Your task to perform on an android device: open app "LiveIn - Share Your Moment" (install if not already installed) Image 0: 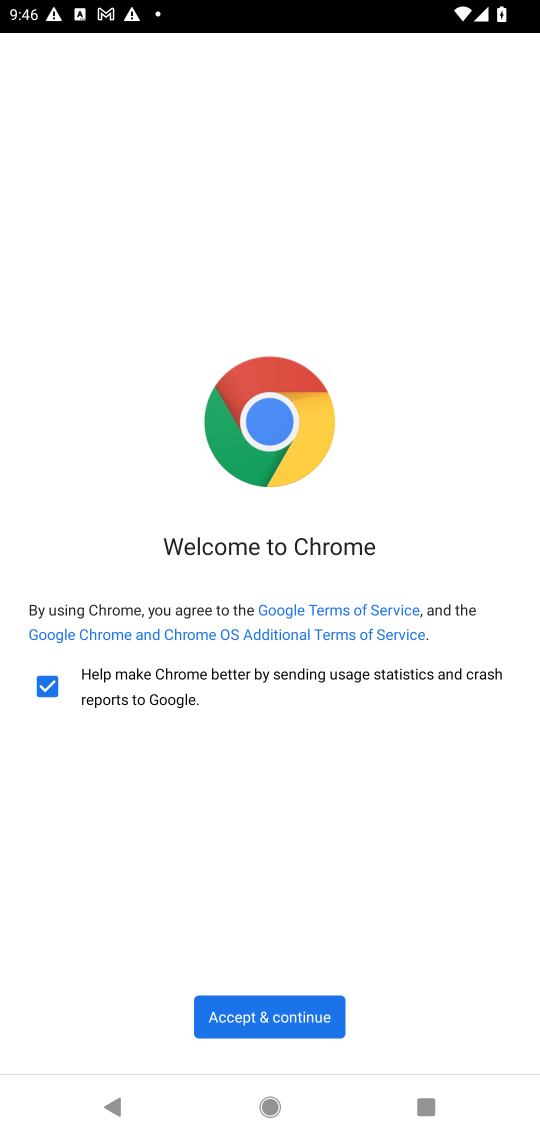
Step 0: press home button
Your task to perform on an android device: open app "LiveIn - Share Your Moment" (install if not already installed) Image 1: 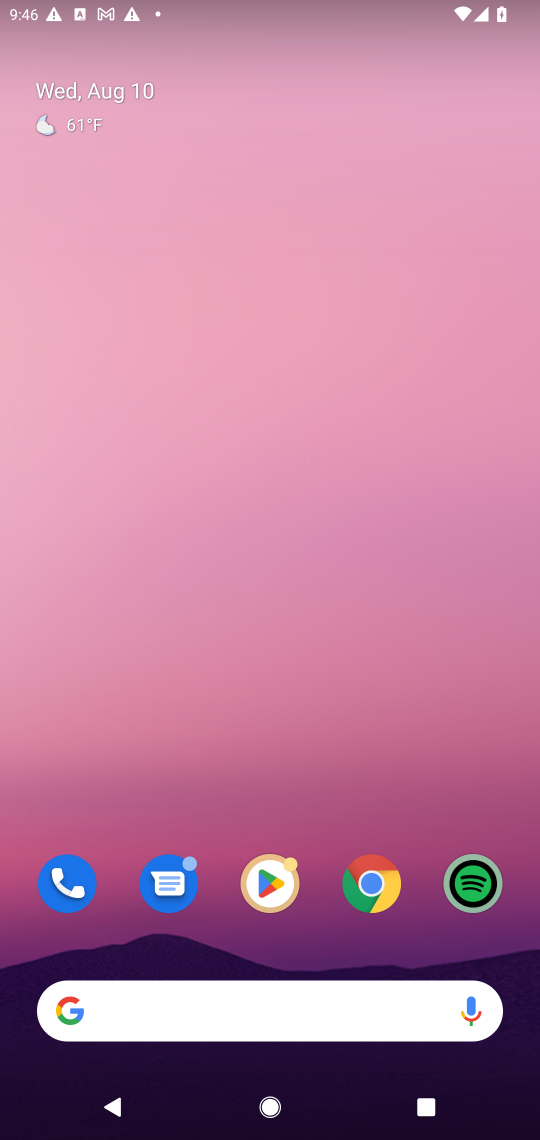
Step 1: click (282, 889)
Your task to perform on an android device: open app "LiveIn - Share Your Moment" (install if not already installed) Image 2: 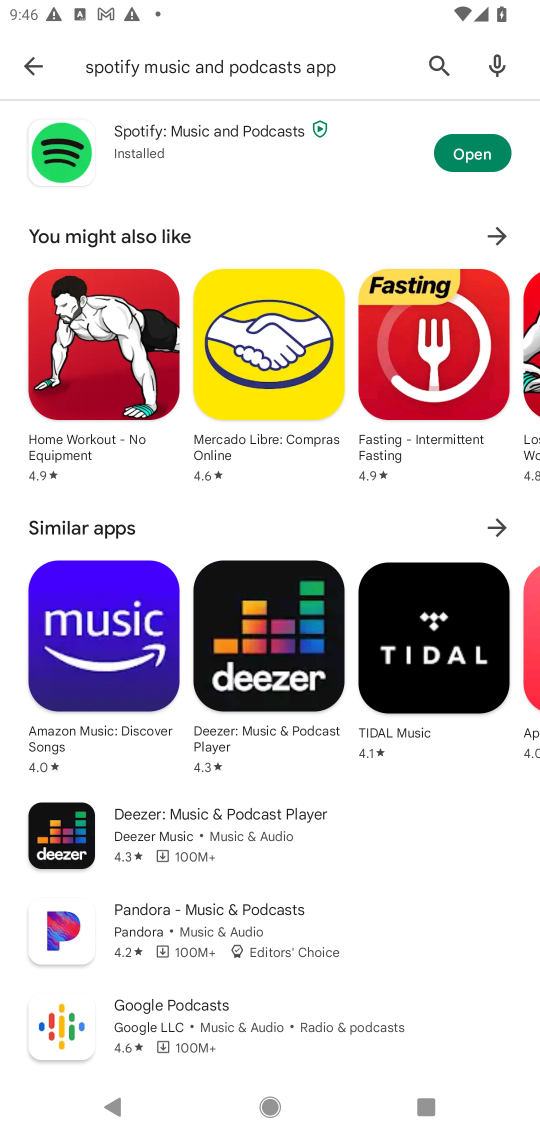
Step 2: click (442, 83)
Your task to perform on an android device: open app "LiveIn - Share Your Moment" (install if not already installed) Image 3: 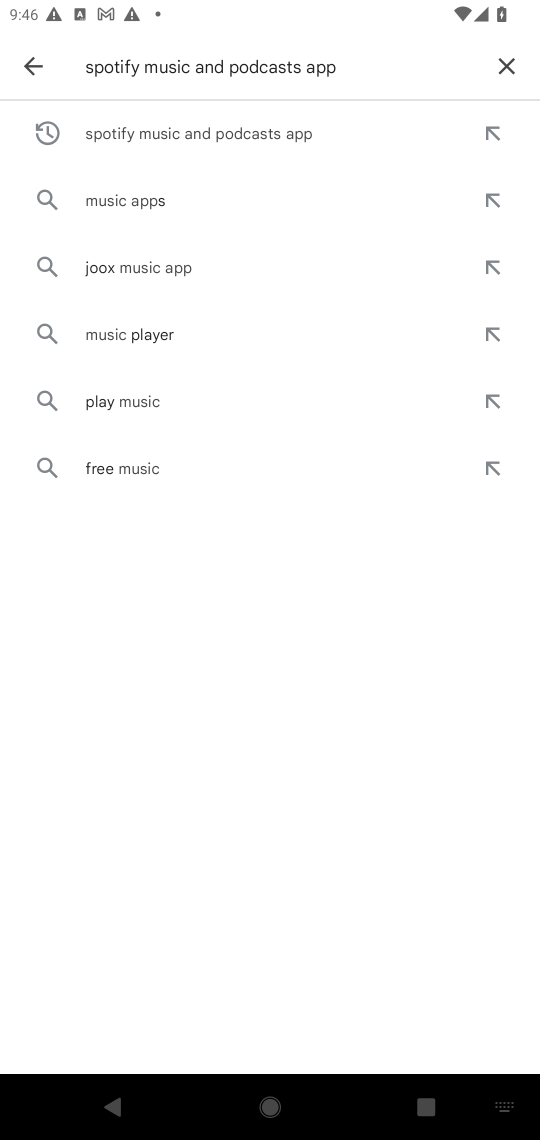
Step 3: click (499, 66)
Your task to perform on an android device: open app "LiveIn - Share Your Moment" (install if not already installed) Image 4: 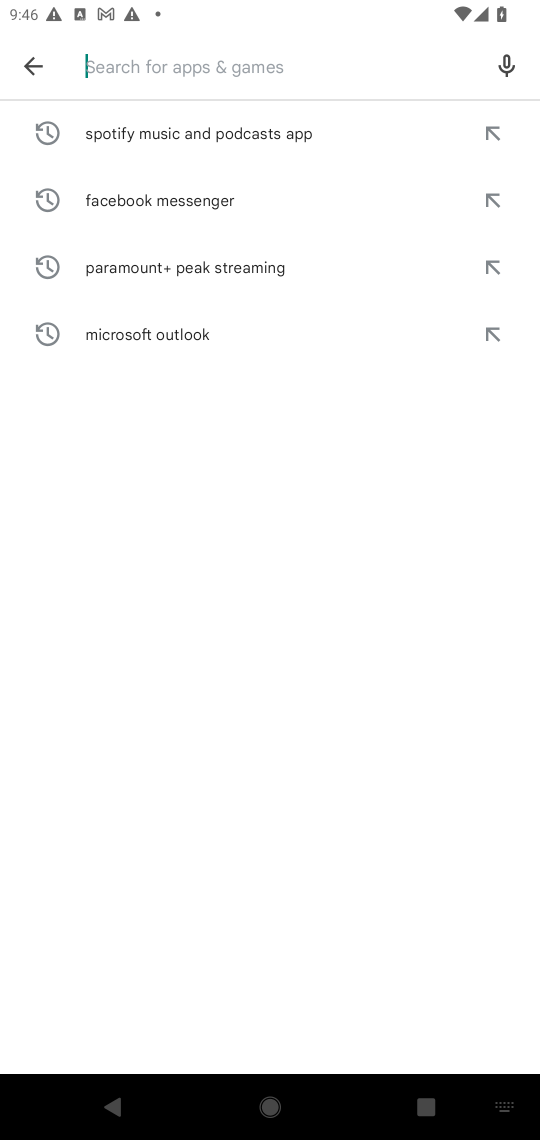
Step 4: type "LiveIn - Share Your Moment"
Your task to perform on an android device: open app "LiveIn - Share Your Moment" (install if not already installed) Image 5: 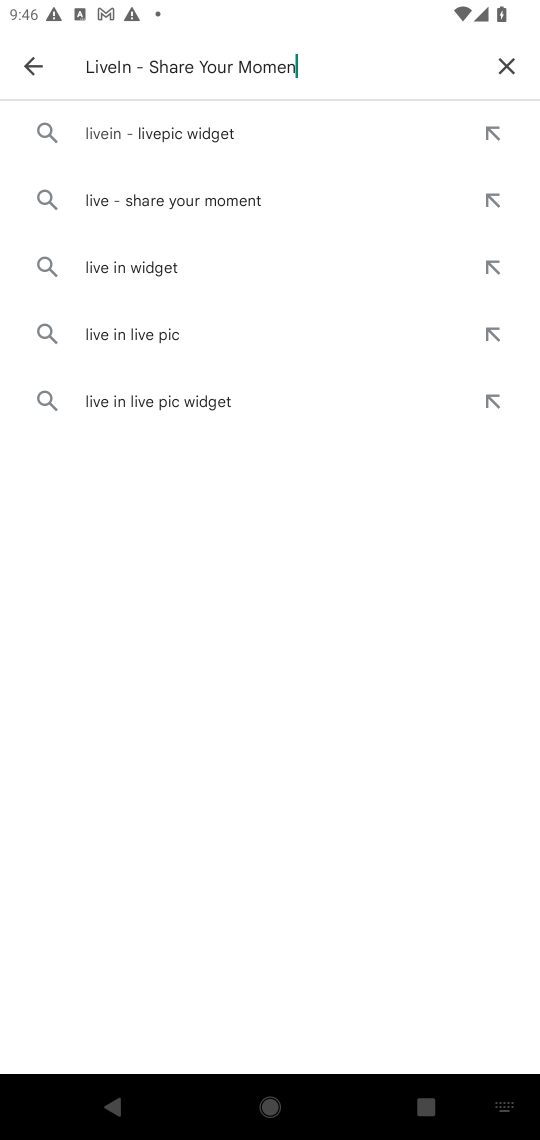
Step 5: type ""
Your task to perform on an android device: open app "LiveIn - Share Your Moment" (install if not already installed) Image 6: 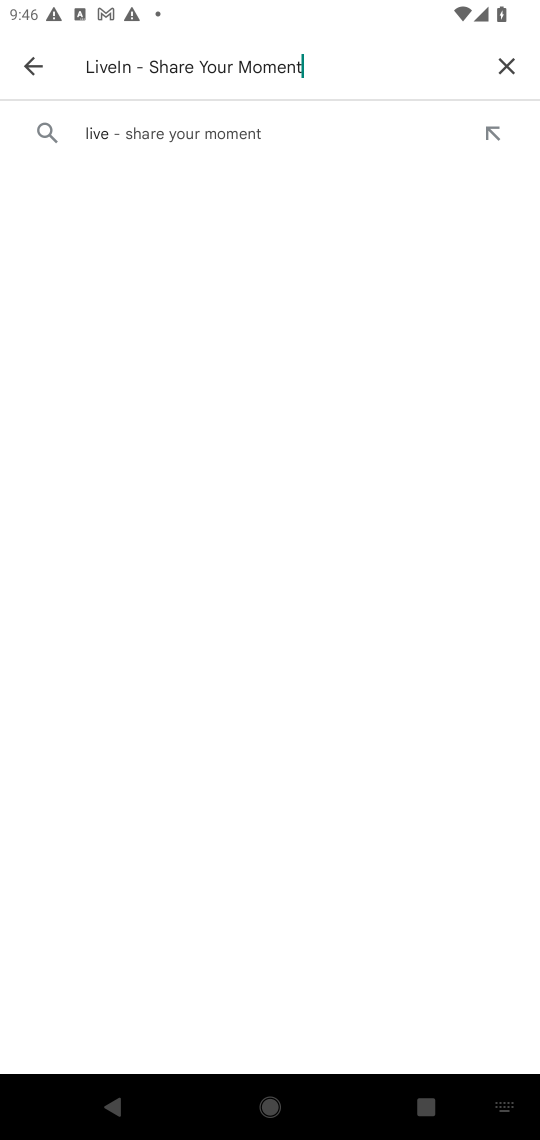
Step 6: click (215, 134)
Your task to perform on an android device: open app "LiveIn - Share Your Moment" (install if not already installed) Image 7: 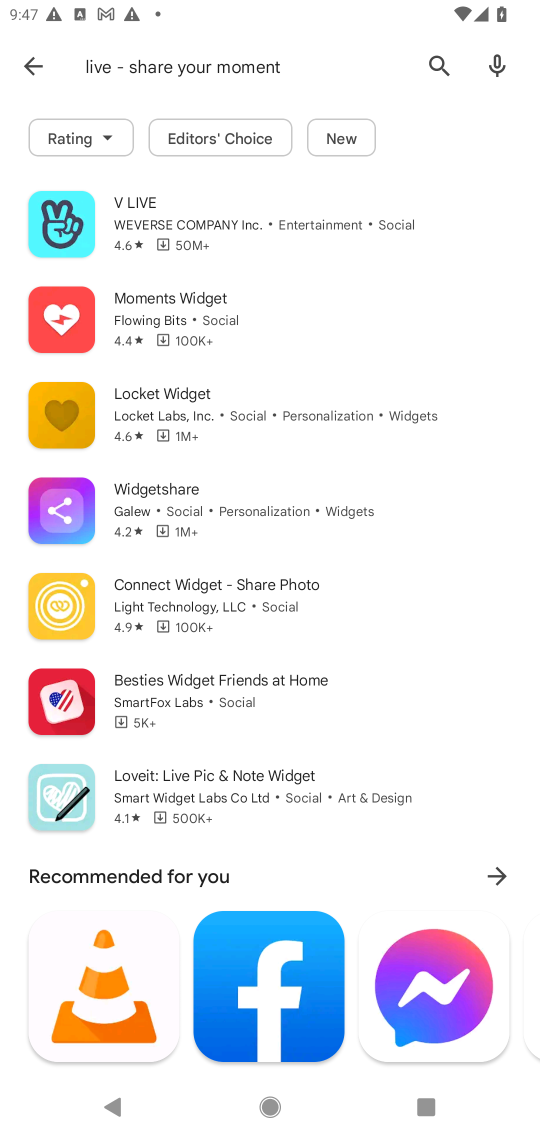
Step 7: task complete